Your task to perform on an android device: Open Android settings Image 0: 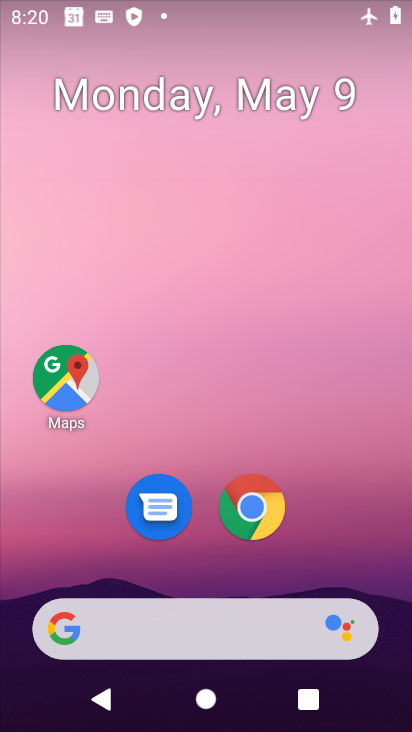
Step 0: drag from (197, 579) to (398, 667)
Your task to perform on an android device: Open Android settings Image 1: 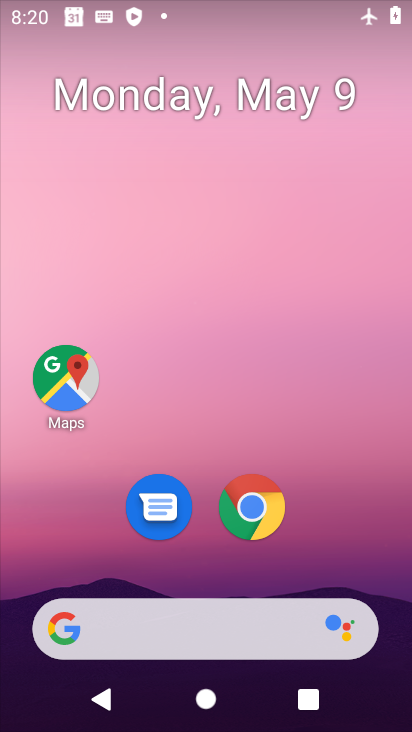
Step 1: drag from (208, 601) to (189, 6)
Your task to perform on an android device: Open Android settings Image 2: 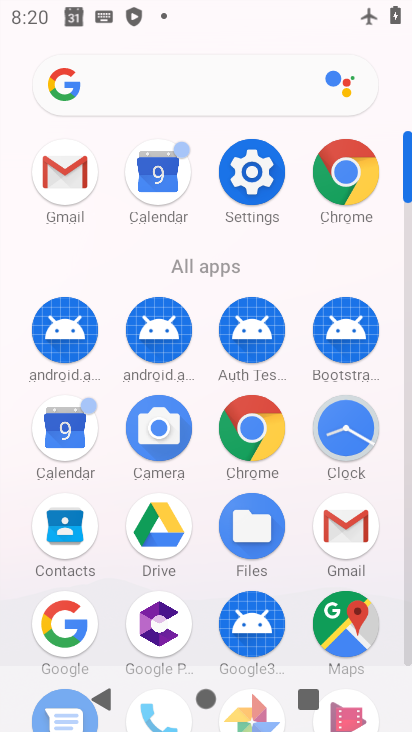
Step 2: click (235, 193)
Your task to perform on an android device: Open Android settings Image 3: 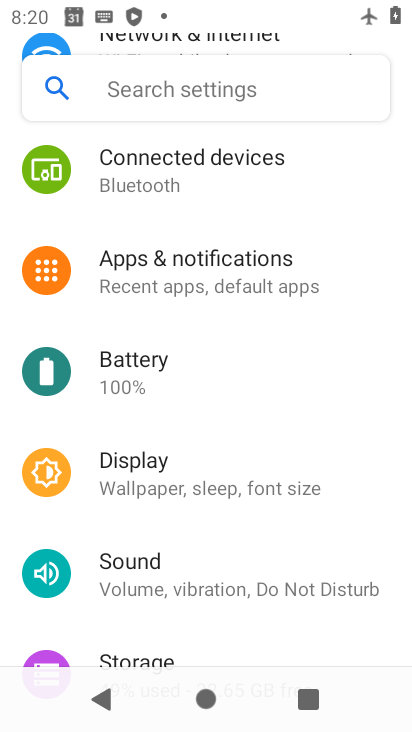
Step 3: drag from (279, 476) to (294, 41)
Your task to perform on an android device: Open Android settings Image 4: 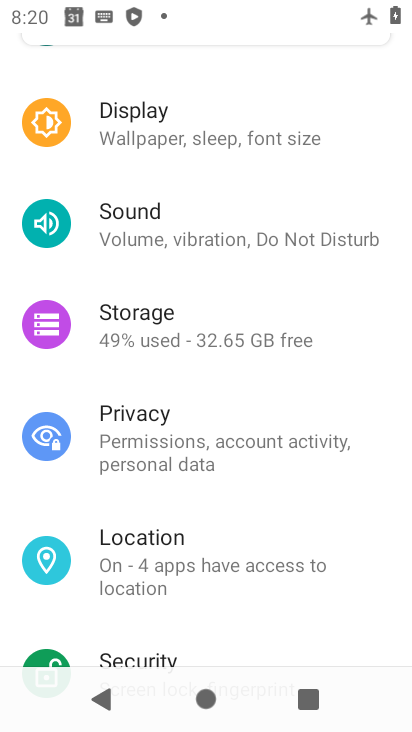
Step 4: drag from (302, 566) to (321, 45)
Your task to perform on an android device: Open Android settings Image 5: 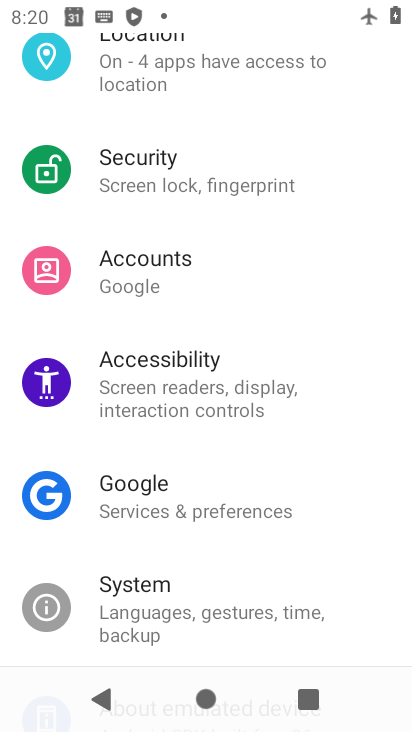
Step 5: drag from (294, 603) to (289, 140)
Your task to perform on an android device: Open Android settings Image 6: 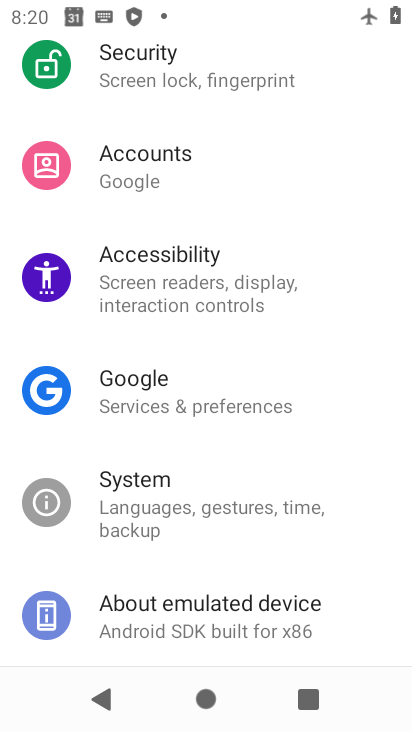
Step 6: click (246, 592)
Your task to perform on an android device: Open Android settings Image 7: 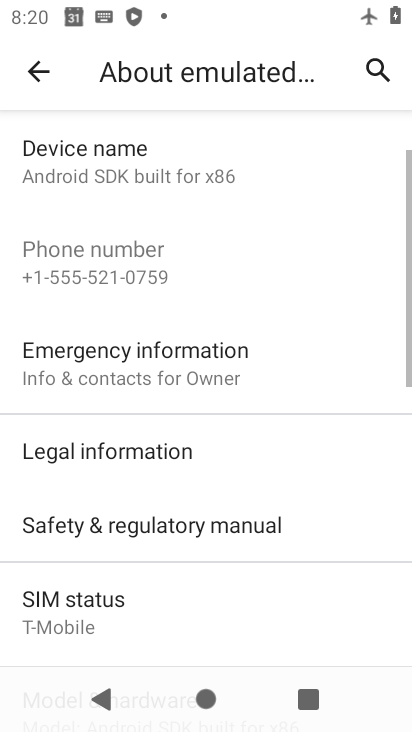
Step 7: drag from (211, 580) to (206, 47)
Your task to perform on an android device: Open Android settings Image 8: 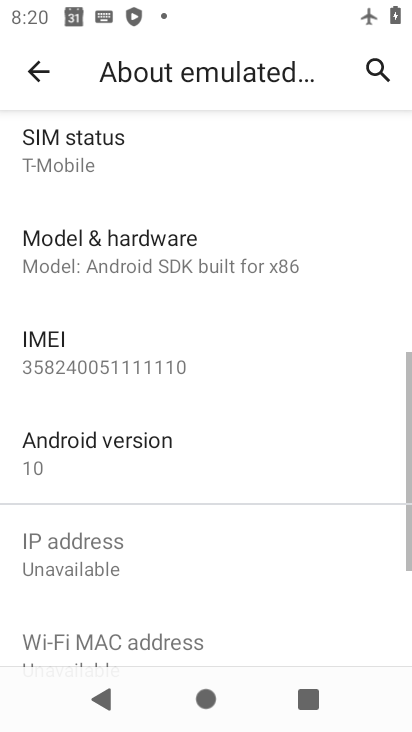
Step 8: click (156, 467)
Your task to perform on an android device: Open Android settings Image 9: 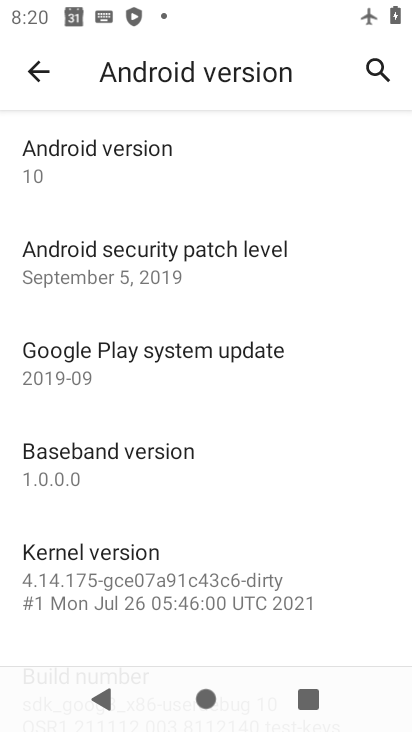
Step 9: click (162, 169)
Your task to perform on an android device: Open Android settings Image 10: 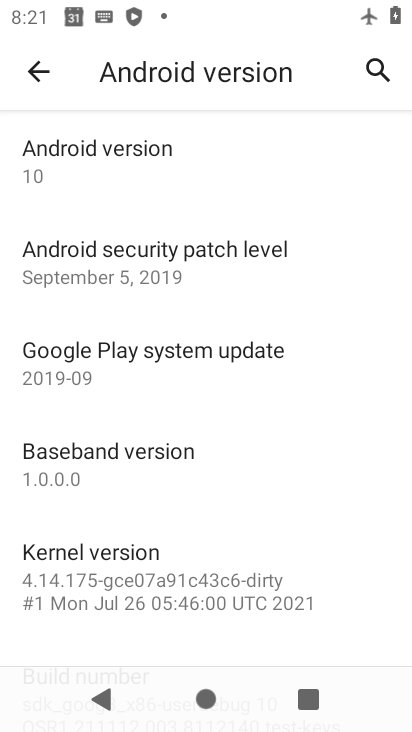
Step 10: task complete